Your task to perform on an android device: Search for Italian restaurants on Maps Image 0: 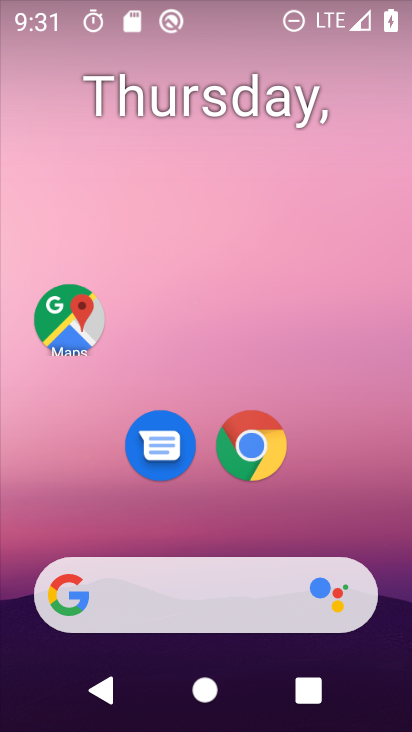
Step 0: drag from (198, 511) to (194, 167)
Your task to perform on an android device: Search for Italian restaurants on Maps Image 1: 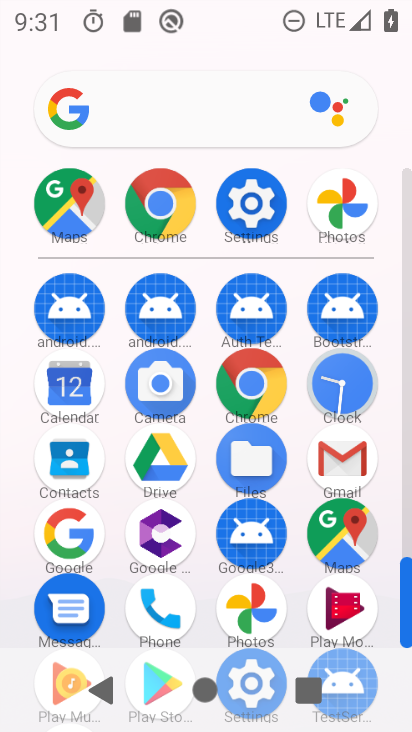
Step 1: click (351, 525)
Your task to perform on an android device: Search for Italian restaurants on Maps Image 2: 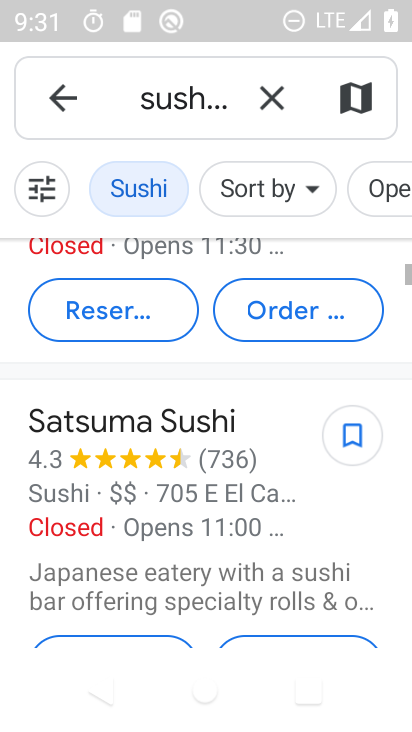
Step 2: click (282, 89)
Your task to perform on an android device: Search for Italian restaurants on Maps Image 3: 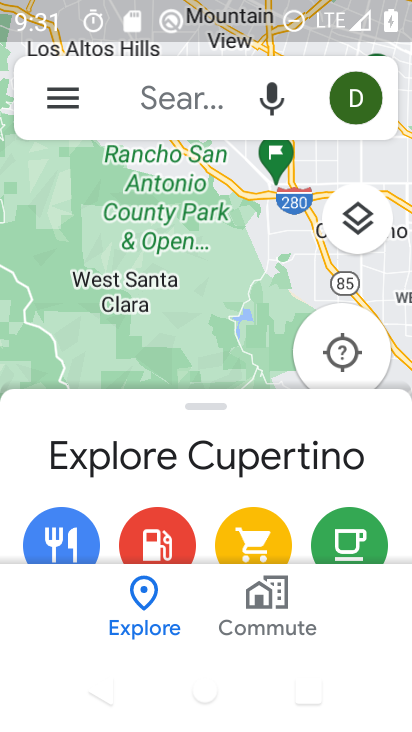
Step 3: drag from (187, 153) to (230, 451)
Your task to perform on an android device: Search for Italian restaurants on Maps Image 4: 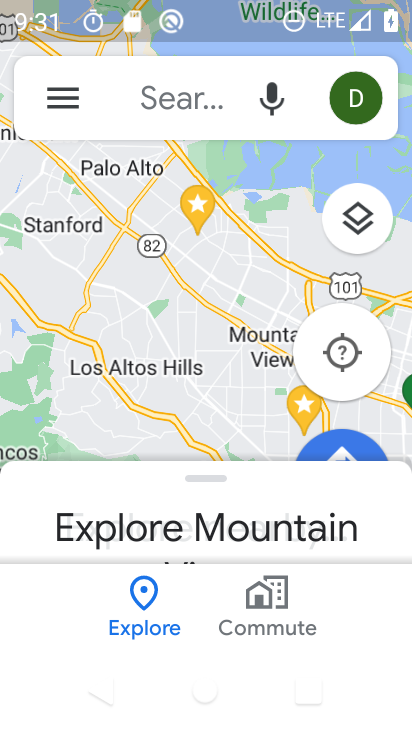
Step 4: click (158, 99)
Your task to perform on an android device: Search for Italian restaurants on Maps Image 5: 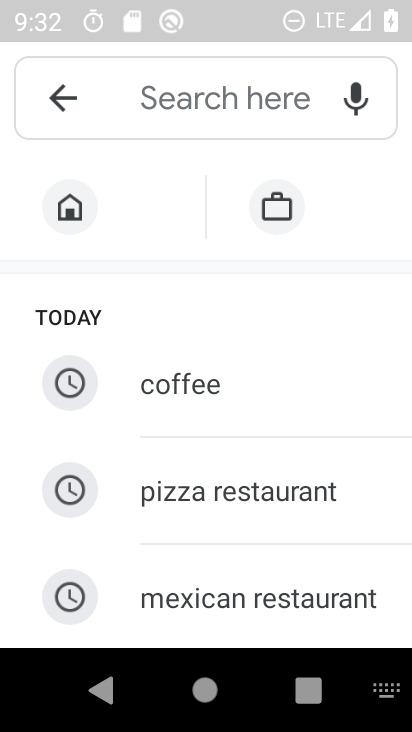
Step 5: drag from (232, 567) to (234, 148)
Your task to perform on an android device: Search for Italian restaurants on Maps Image 6: 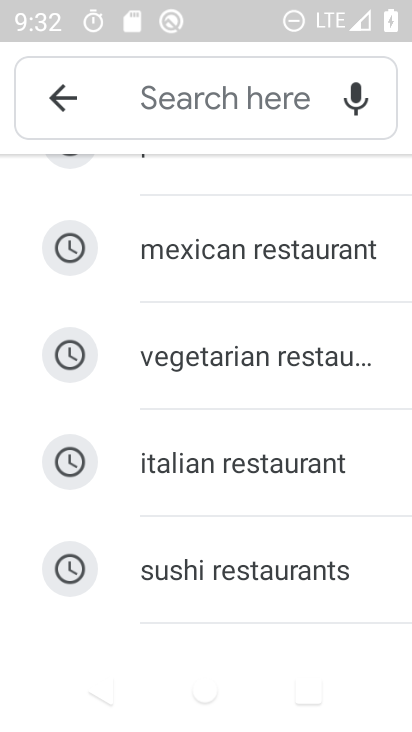
Step 6: click (183, 467)
Your task to perform on an android device: Search for Italian restaurants on Maps Image 7: 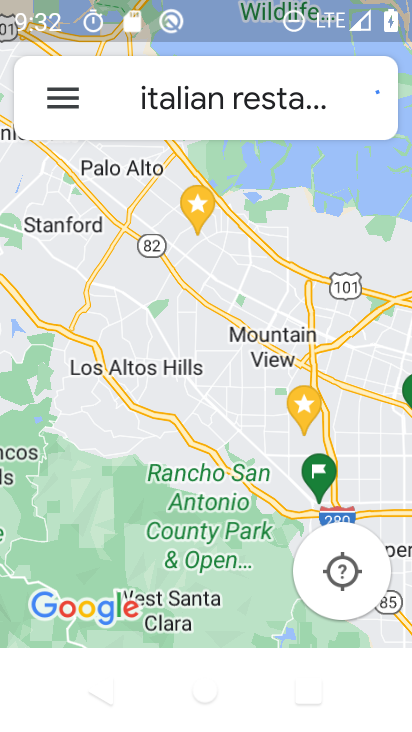
Step 7: drag from (222, 526) to (184, 250)
Your task to perform on an android device: Search for Italian restaurants on Maps Image 8: 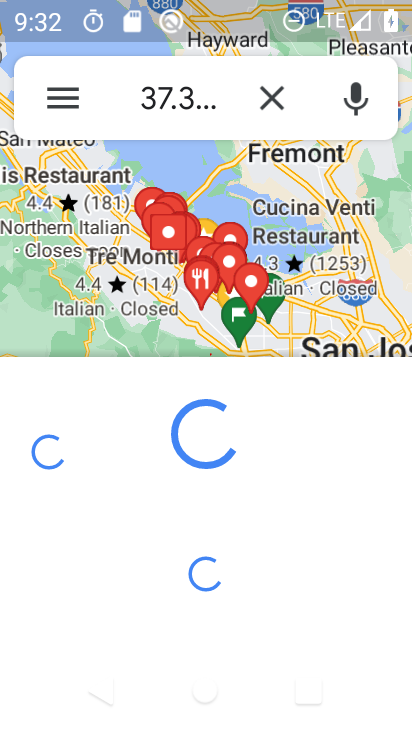
Step 8: drag from (192, 600) to (194, 376)
Your task to perform on an android device: Search for Italian restaurants on Maps Image 9: 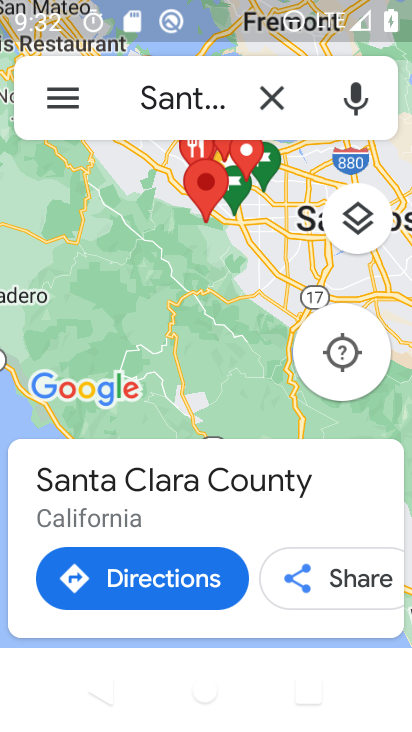
Step 9: drag from (162, 497) to (224, 147)
Your task to perform on an android device: Search for Italian restaurants on Maps Image 10: 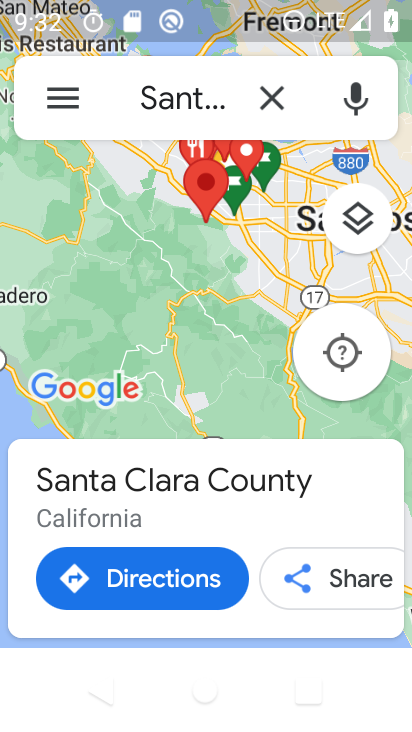
Step 10: click (276, 95)
Your task to perform on an android device: Search for Italian restaurants on Maps Image 11: 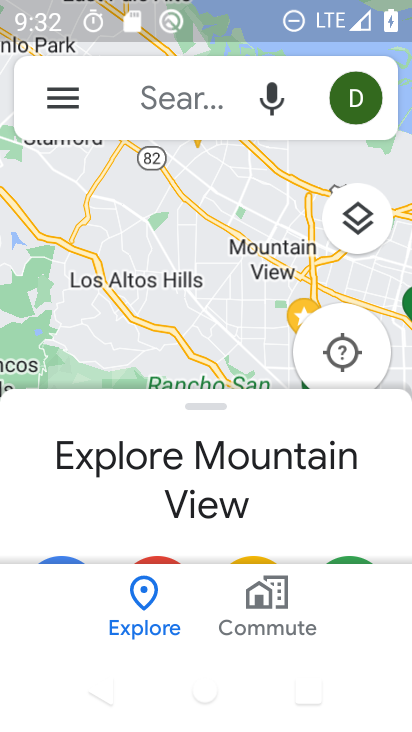
Step 11: click (258, 92)
Your task to perform on an android device: Search for Italian restaurants on Maps Image 12: 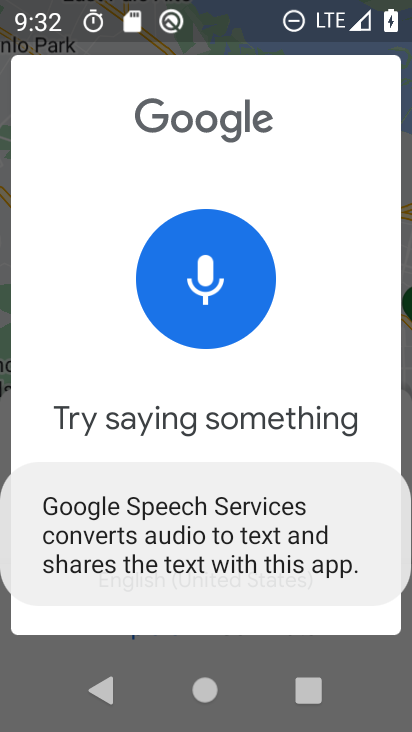
Step 12: press back button
Your task to perform on an android device: Search for Italian restaurants on Maps Image 13: 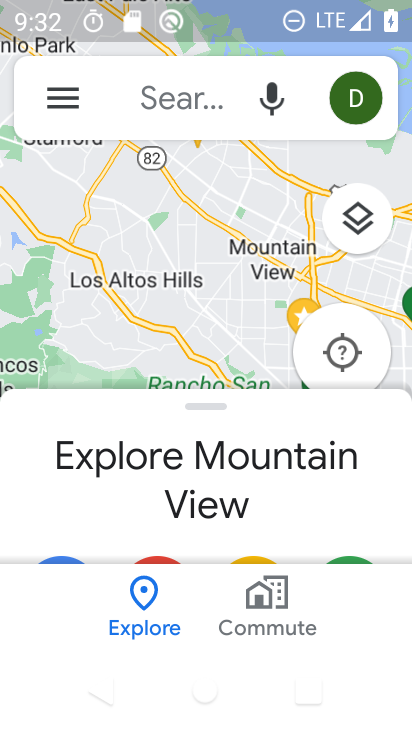
Step 13: click (135, 97)
Your task to perform on an android device: Search for Italian restaurants on Maps Image 14: 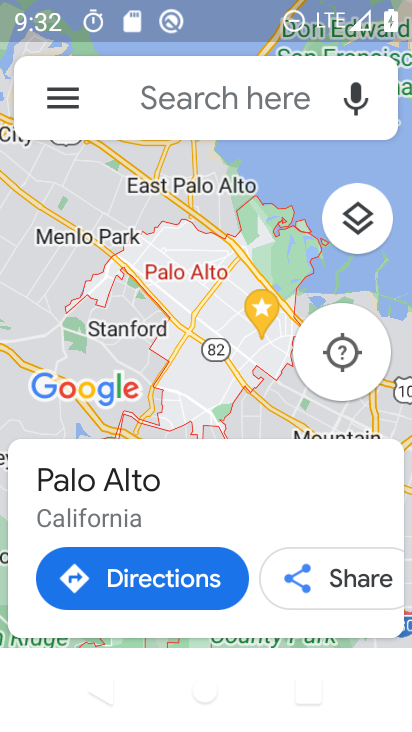
Step 14: click (165, 108)
Your task to perform on an android device: Search for Italian restaurants on Maps Image 15: 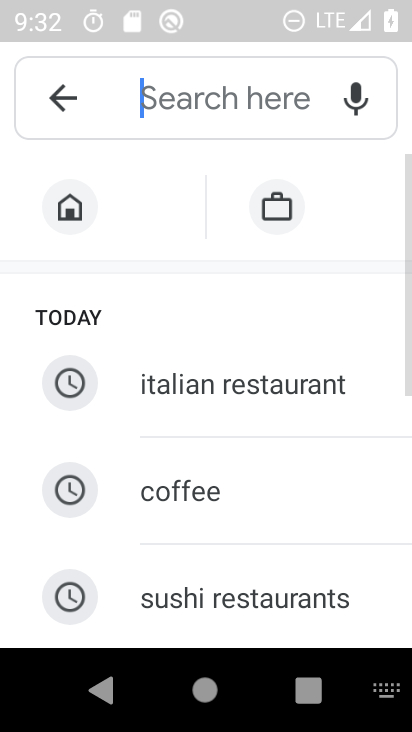
Step 15: click (186, 373)
Your task to perform on an android device: Search for Italian restaurants on Maps Image 16: 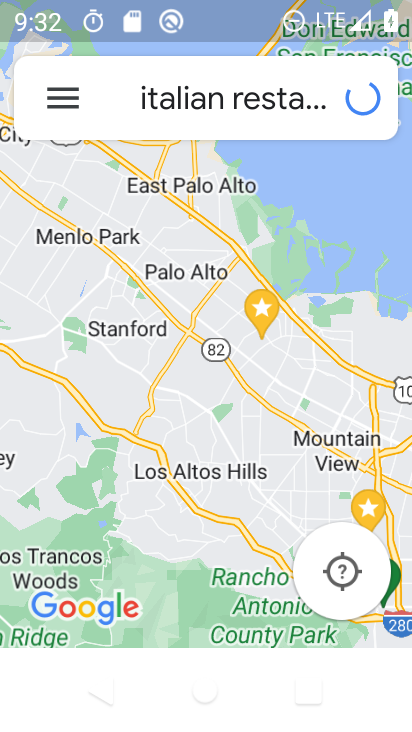
Step 16: task complete